Your task to perform on an android device: Open the calendar app, open the side menu, and click the "Day" option Image 0: 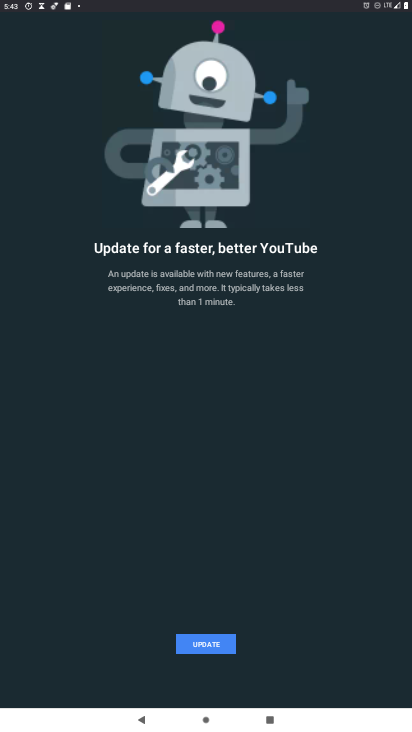
Step 0: drag from (198, 656) to (240, 656)
Your task to perform on an android device: Open the calendar app, open the side menu, and click the "Day" option Image 1: 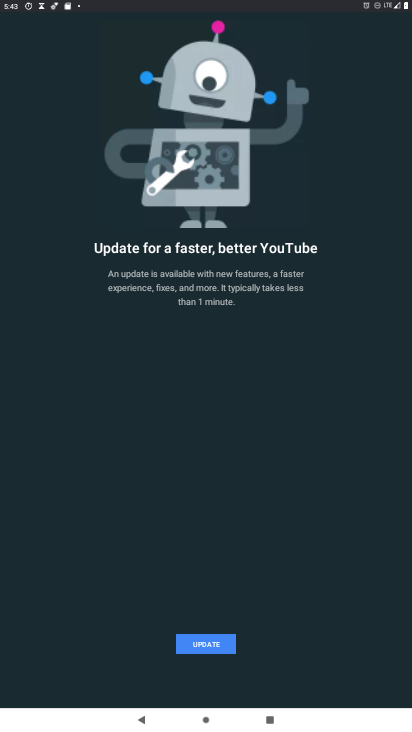
Step 1: press back button
Your task to perform on an android device: Open the calendar app, open the side menu, and click the "Day" option Image 2: 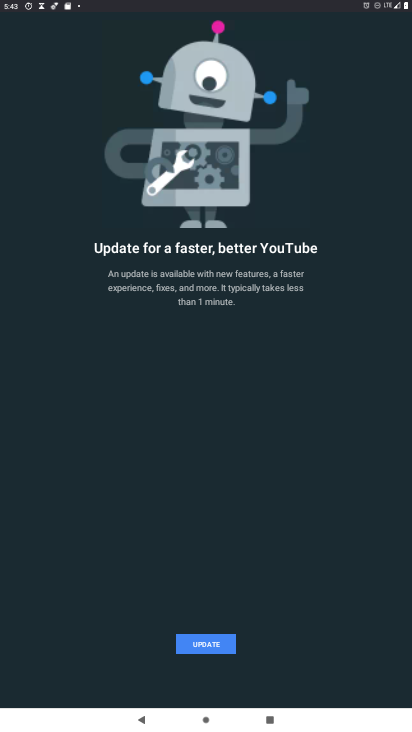
Step 2: drag from (240, 656) to (254, 591)
Your task to perform on an android device: Open the calendar app, open the side menu, and click the "Day" option Image 3: 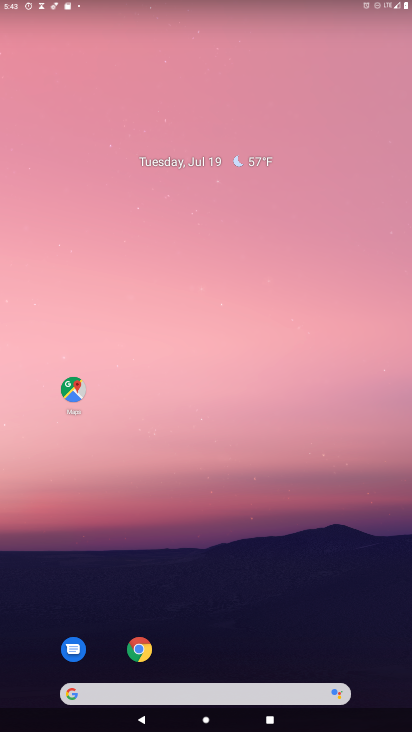
Step 3: press home button
Your task to perform on an android device: Open the calendar app, open the side menu, and click the "Day" option Image 4: 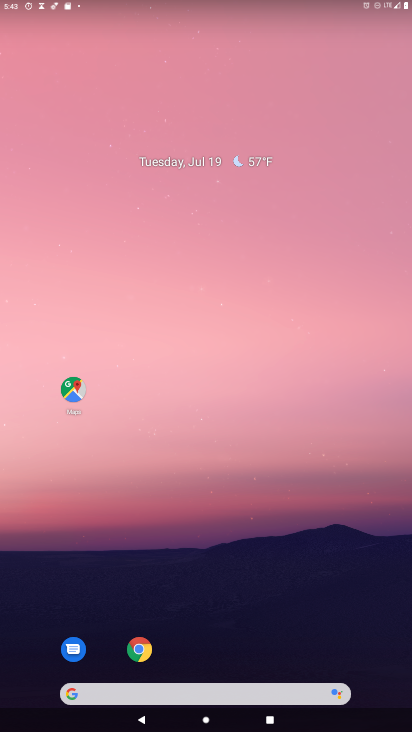
Step 4: drag from (173, 628) to (196, 67)
Your task to perform on an android device: Open the calendar app, open the side menu, and click the "Day" option Image 5: 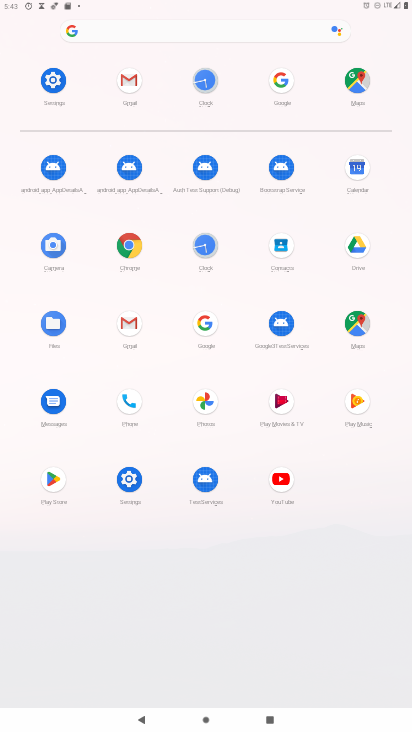
Step 5: click (353, 185)
Your task to perform on an android device: Open the calendar app, open the side menu, and click the "Day" option Image 6: 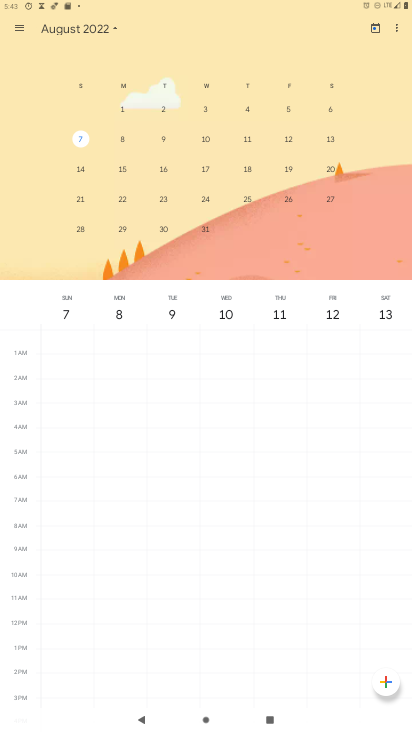
Step 6: click (13, 27)
Your task to perform on an android device: Open the calendar app, open the side menu, and click the "Day" option Image 7: 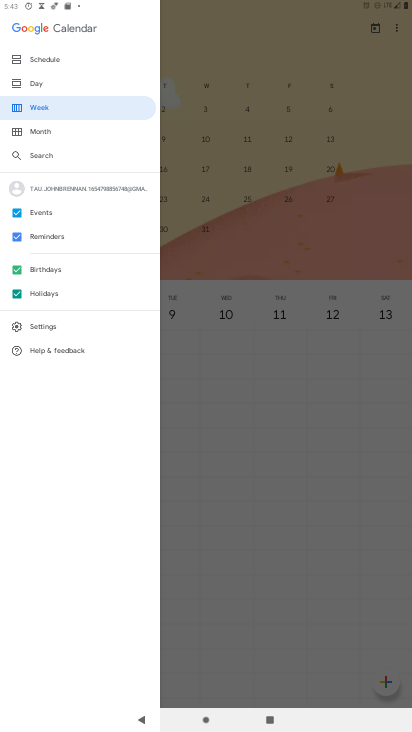
Step 7: click (41, 83)
Your task to perform on an android device: Open the calendar app, open the side menu, and click the "Day" option Image 8: 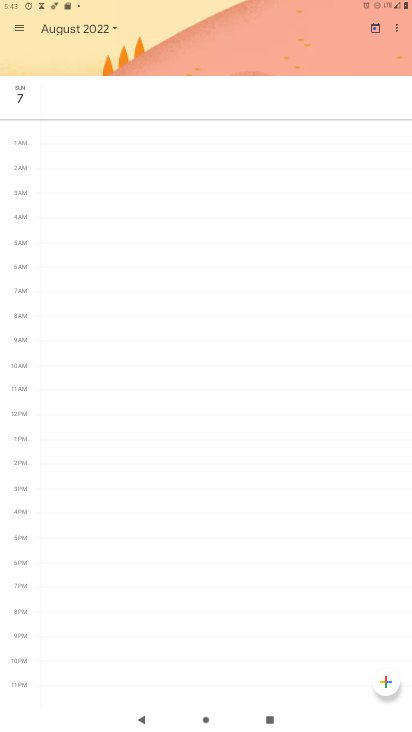
Step 8: task complete